Your task to perform on an android device: open app "Move to iOS" (install if not already installed) and enter user name: "Decca@icloud.com" and password: "reabbreviate" Image 0: 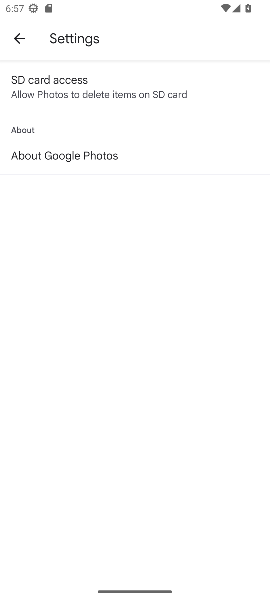
Step 0: press home button
Your task to perform on an android device: open app "Move to iOS" (install if not already installed) and enter user name: "Decca@icloud.com" and password: "reabbreviate" Image 1: 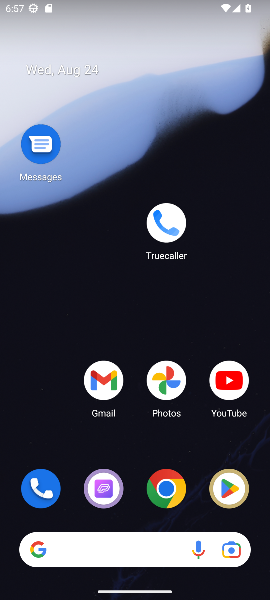
Step 1: click (244, 496)
Your task to perform on an android device: open app "Move to iOS" (install if not already installed) and enter user name: "Decca@icloud.com" and password: "reabbreviate" Image 2: 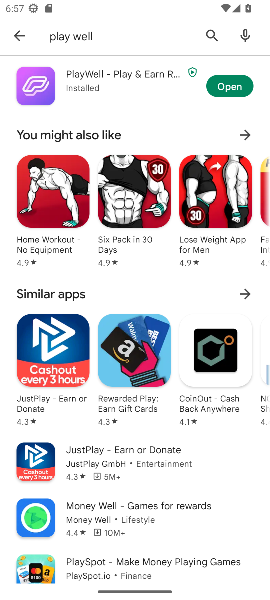
Step 2: click (207, 41)
Your task to perform on an android device: open app "Move to iOS" (install if not already installed) and enter user name: "Decca@icloud.com" and password: "reabbreviate" Image 3: 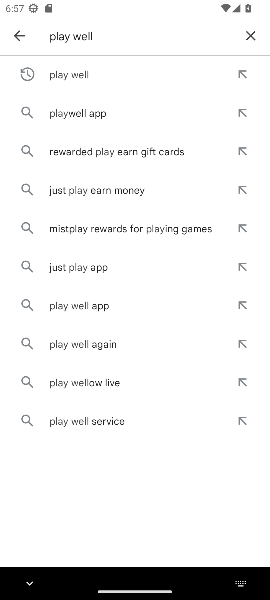
Step 3: click (247, 36)
Your task to perform on an android device: open app "Move to iOS" (install if not already installed) and enter user name: "Decca@icloud.com" and password: "reabbreviate" Image 4: 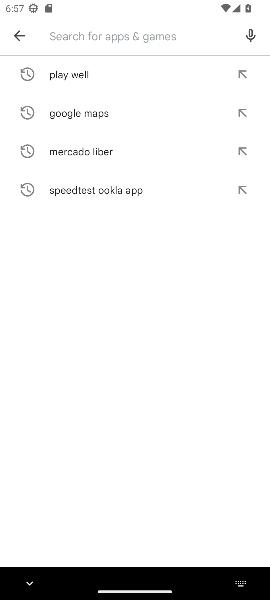
Step 4: type "move iso"
Your task to perform on an android device: open app "Move to iOS" (install if not already installed) and enter user name: "Decca@icloud.com" and password: "reabbreviate" Image 5: 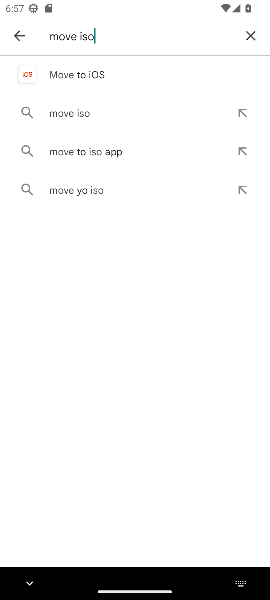
Step 5: click (89, 89)
Your task to perform on an android device: open app "Move to iOS" (install if not already installed) and enter user name: "Decca@icloud.com" and password: "reabbreviate" Image 6: 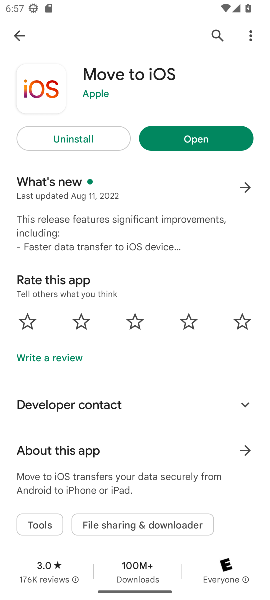
Step 6: click (211, 125)
Your task to perform on an android device: open app "Move to iOS" (install if not already installed) and enter user name: "Decca@icloud.com" and password: "reabbreviate" Image 7: 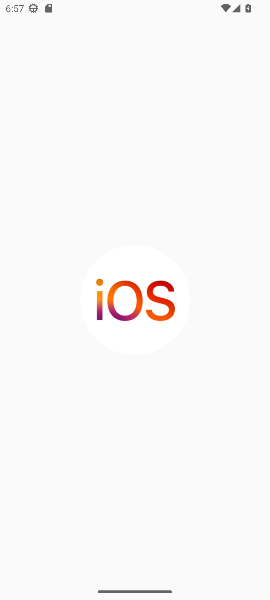
Step 7: task complete